Your task to perform on an android device: Search for hotels in Sydney Image 0: 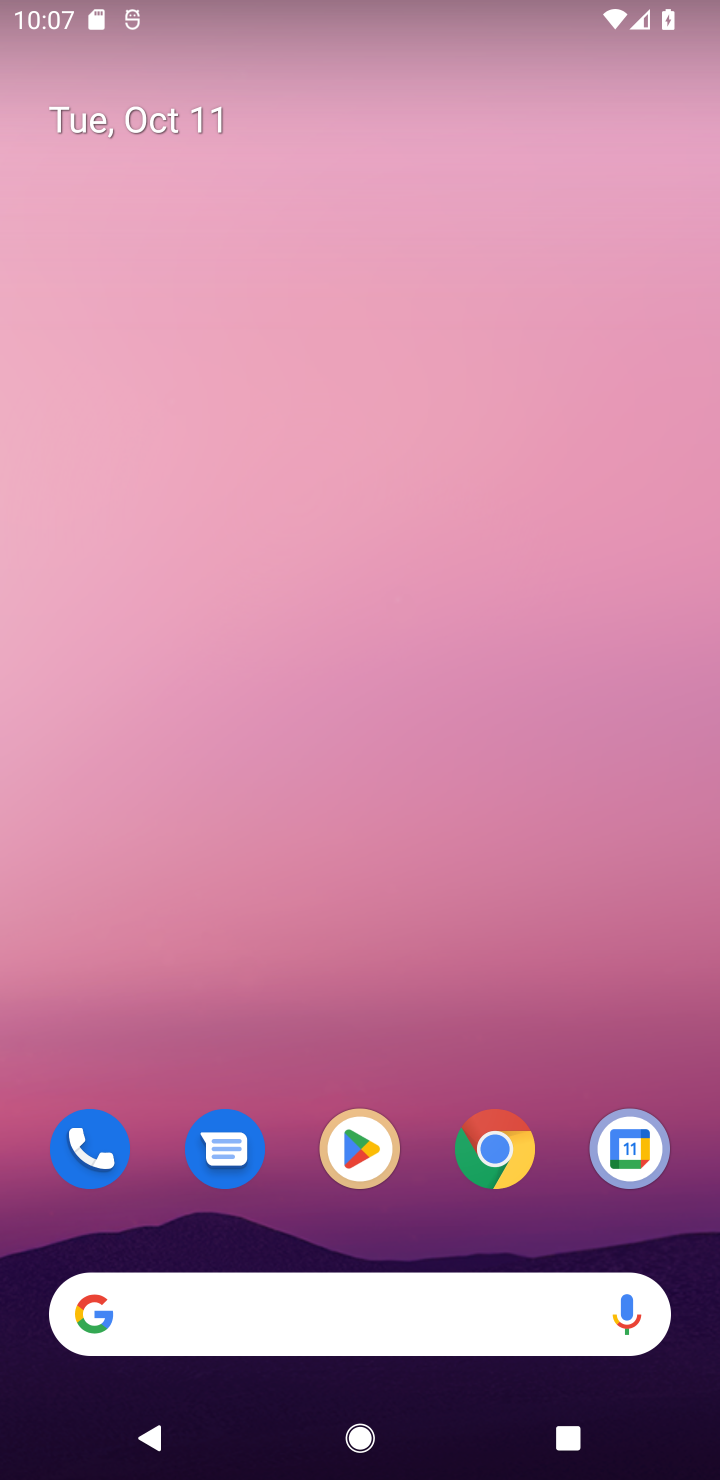
Step 0: drag from (371, 1105) to (308, 187)
Your task to perform on an android device: Search for hotels in Sydney Image 1: 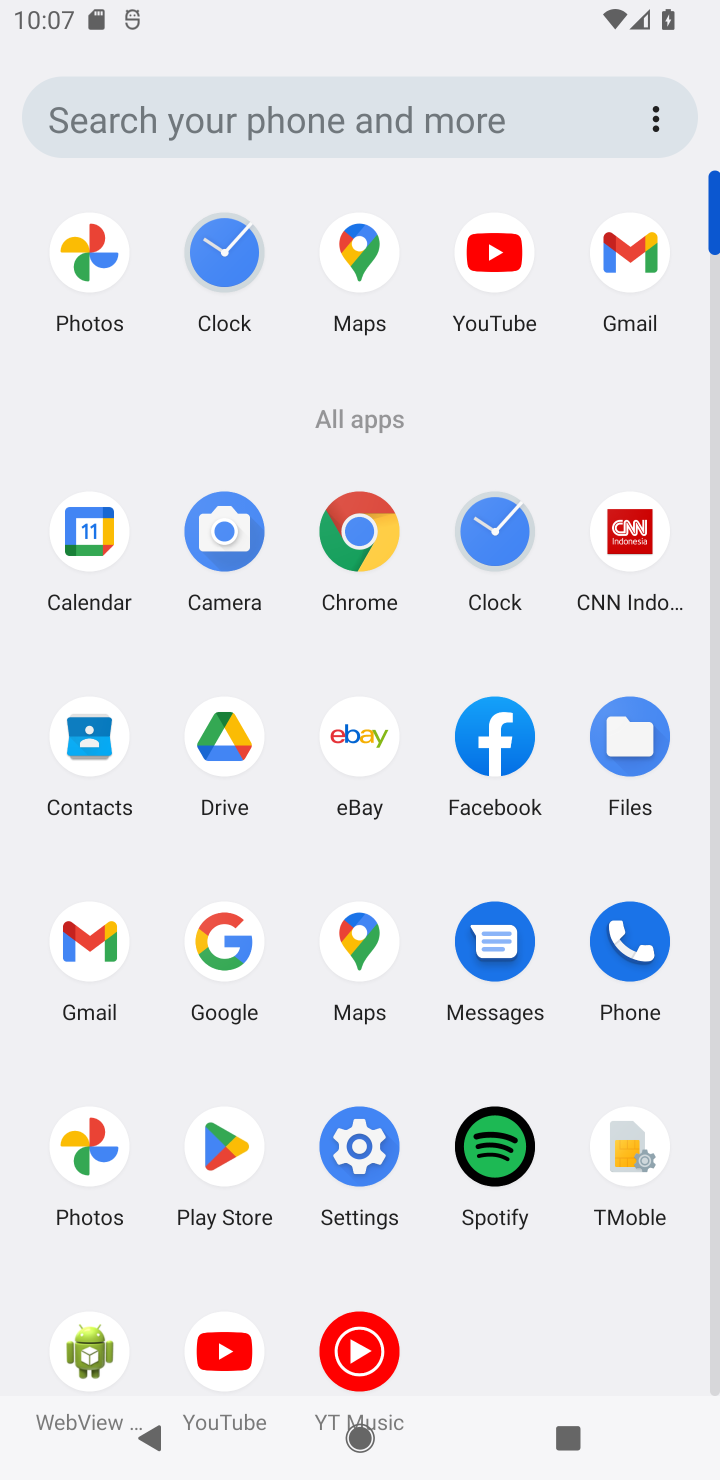
Step 1: click (362, 939)
Your task to perform on an android device: Search for hotels in Sydney Image 2: 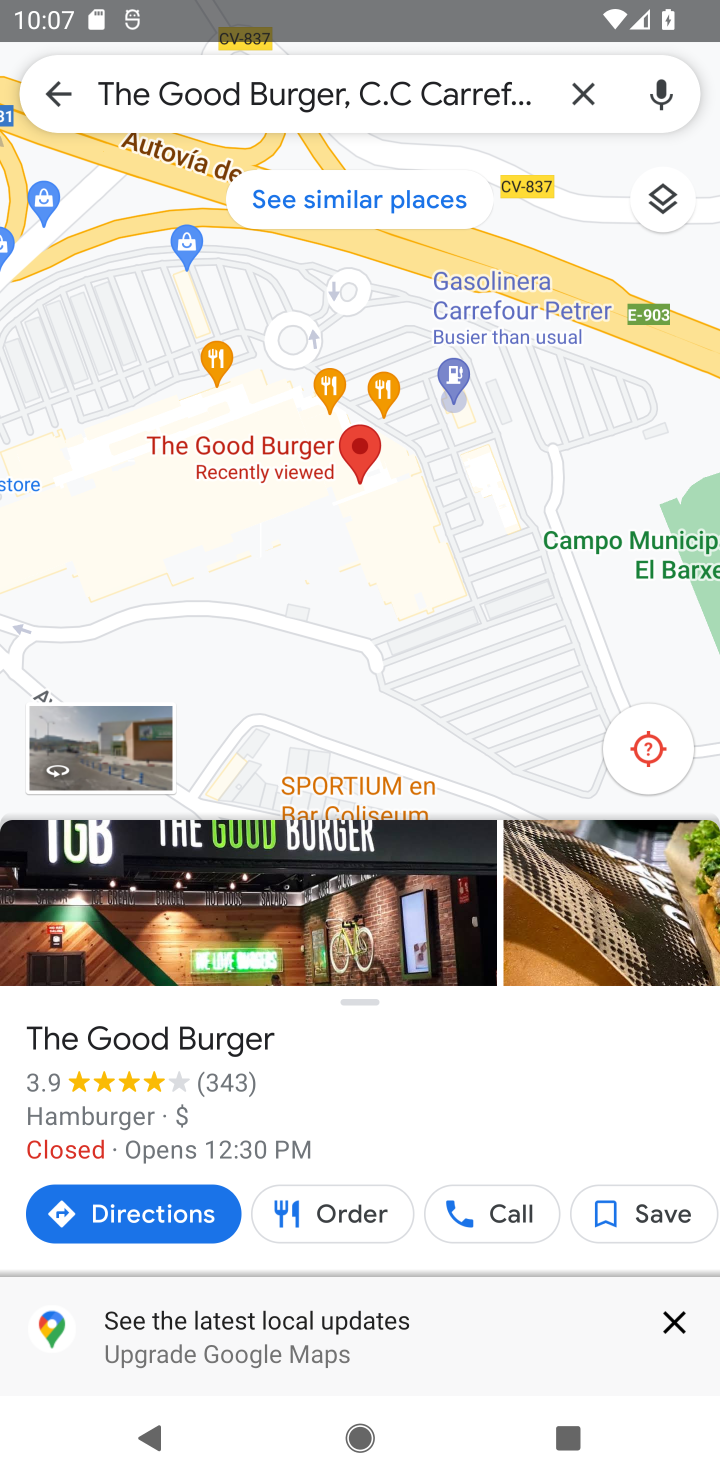
Step 2: click (576, 89)
Your task to perform on an android device: Search for hotels in Sydney Image 3: 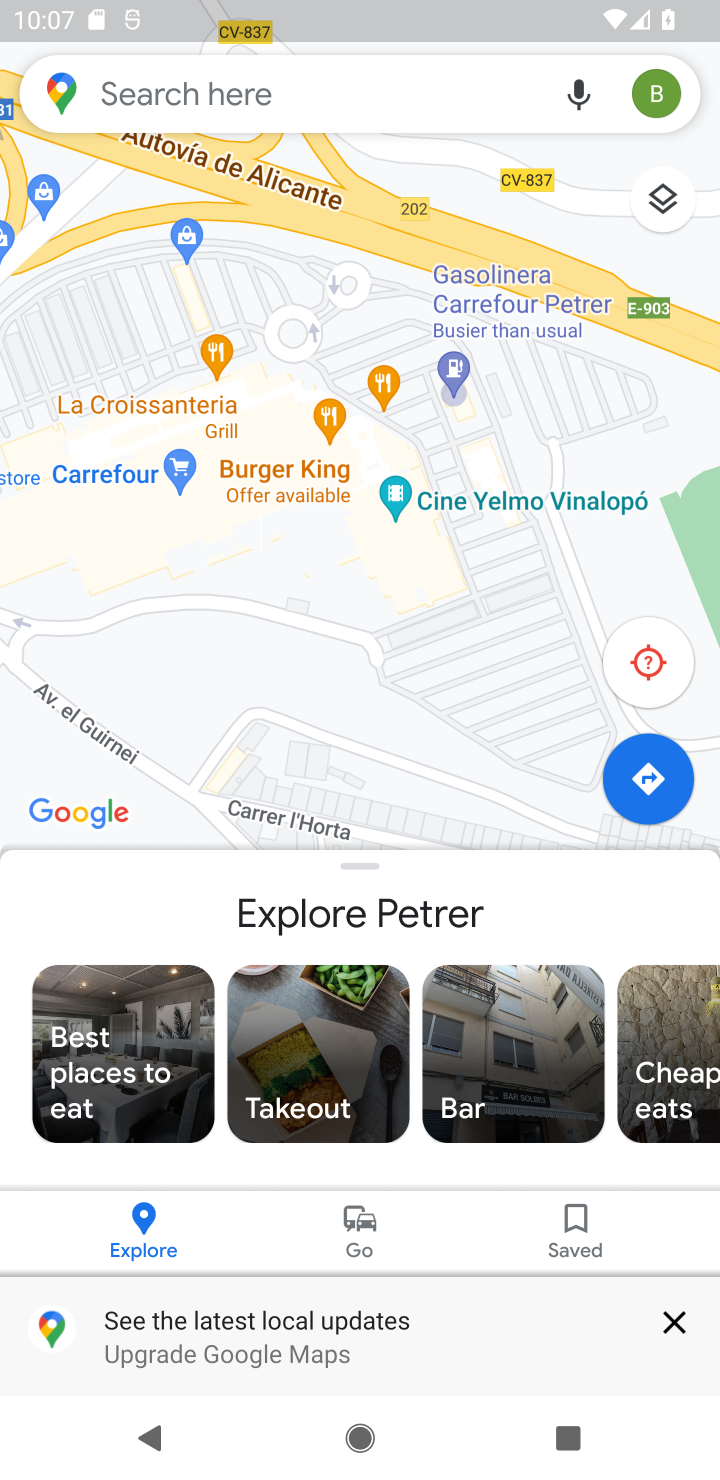
Step 3: click (309, 99)
Your task to perform on an android device: Search for hotels in Sydney Image 4: 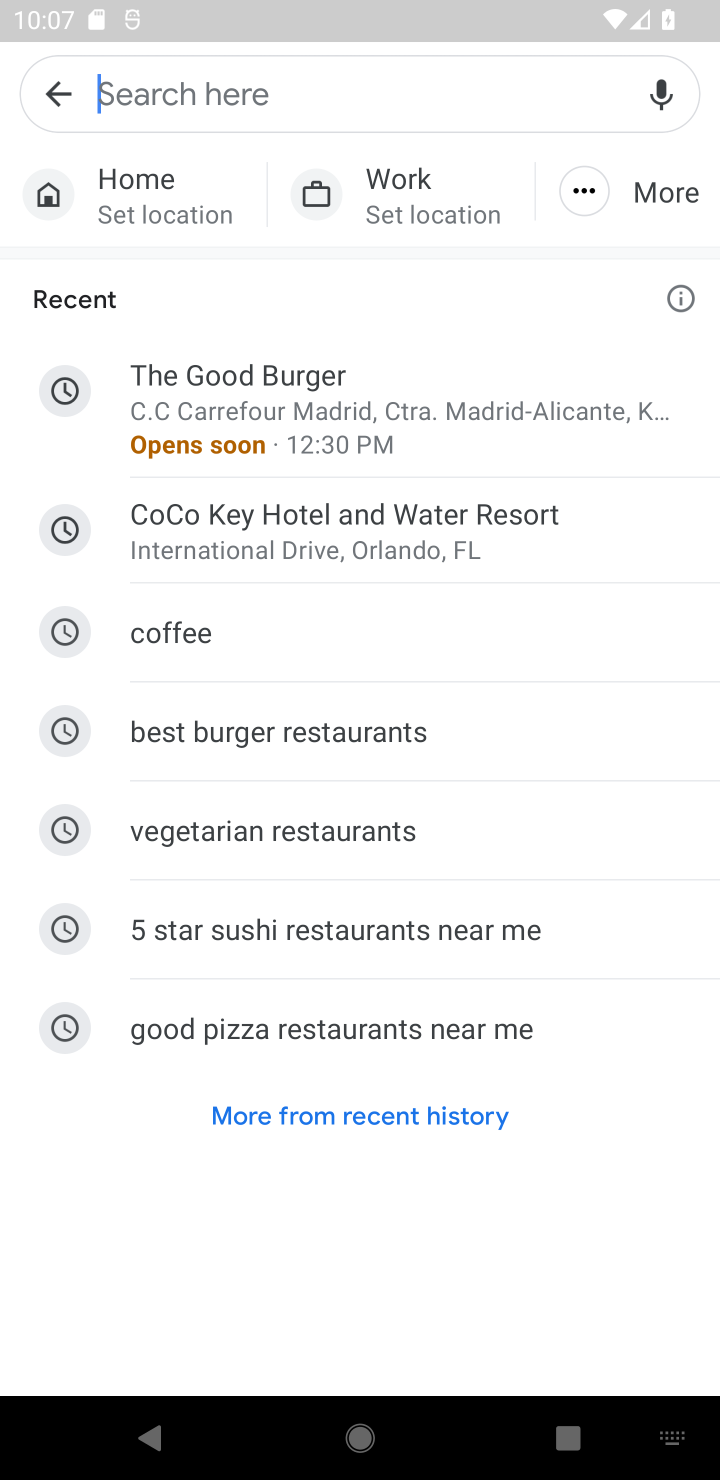
Step 4: type "hotels in Sydney"
Your task to perform on an android device: Search for hotels in Sydney Image 5: 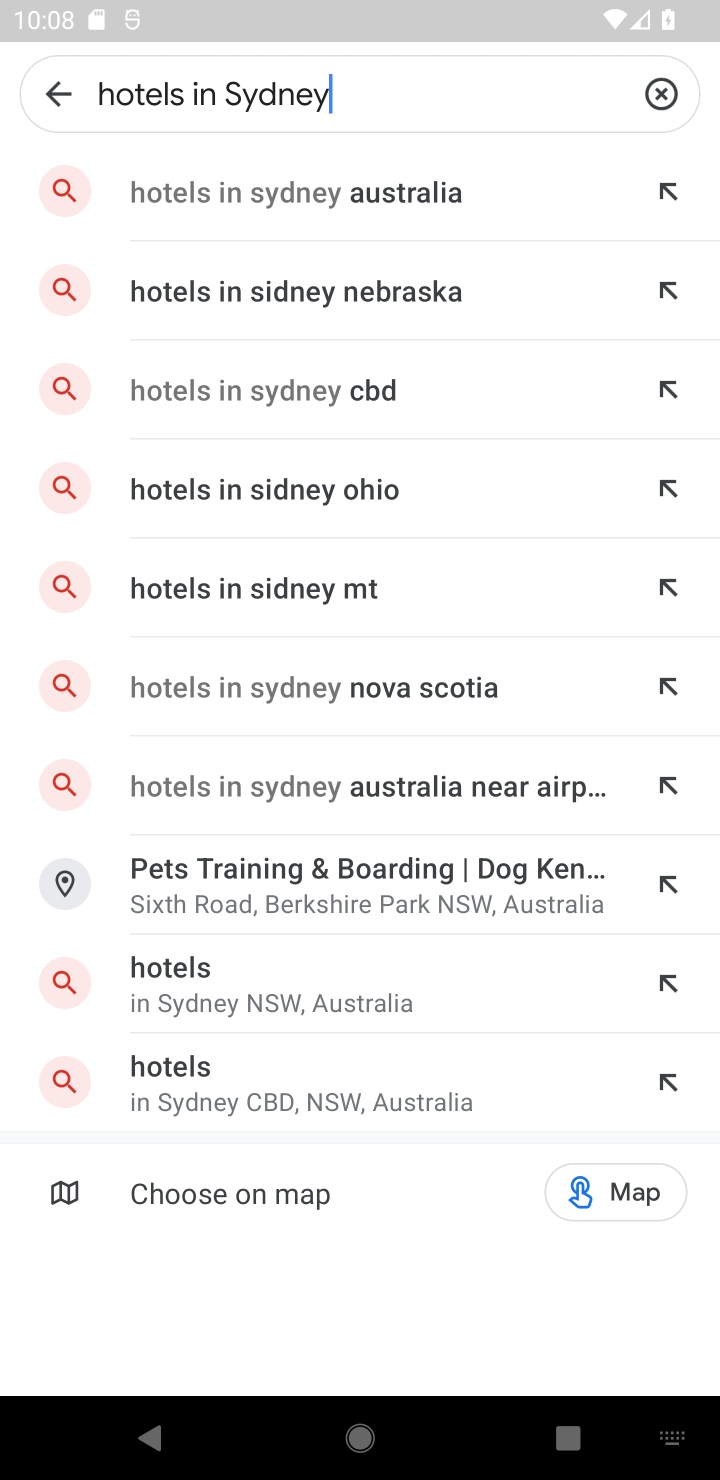
Step 5: click (217, 201)
Your task to perform on an android device: Search for hotels in Sydney Image 6: 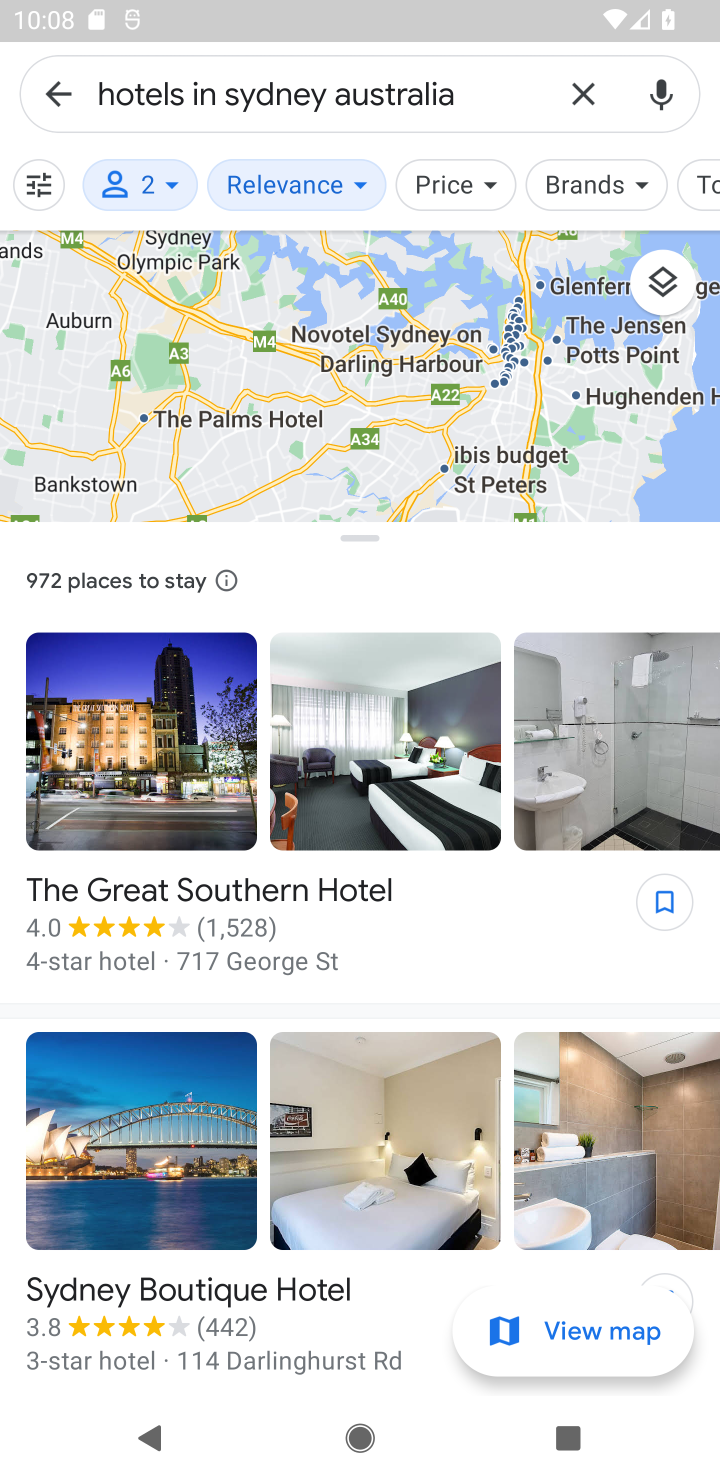
Step 6: task complete